Your task to perform on an android device: see sites visited before in the chrome app Image 0: 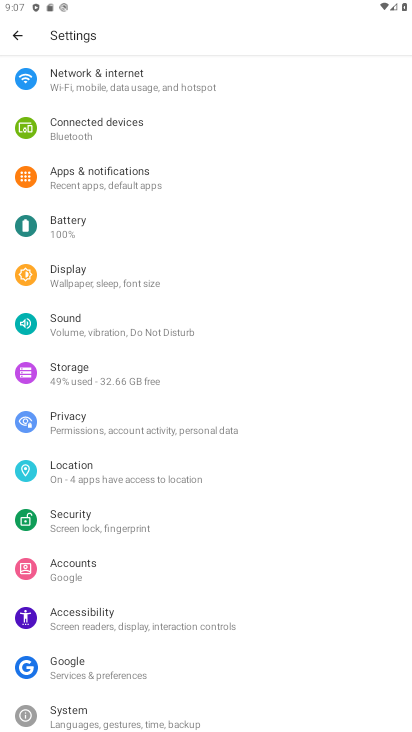
Step 0: press home button
Your task to perform on an android device: see sites visited before in the chrome app Image 1: 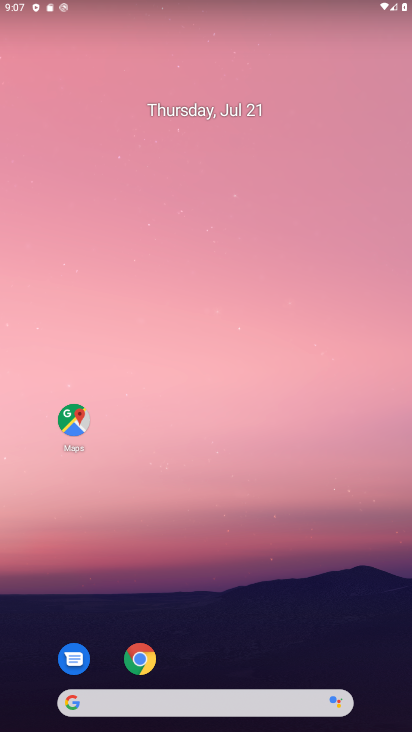
Step 1: click (131, 661)
Your task to perform on an android device: see sites visited before in the chrome app Image 2: 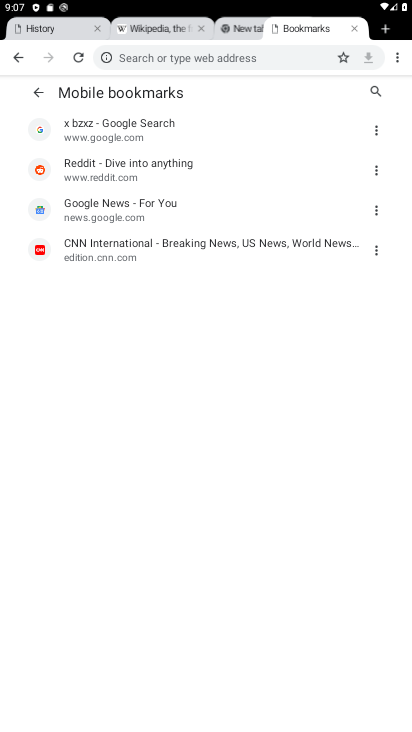
Step 2: task complete